Your task to perform on an android device: turn on bluetooth scan Image 0: 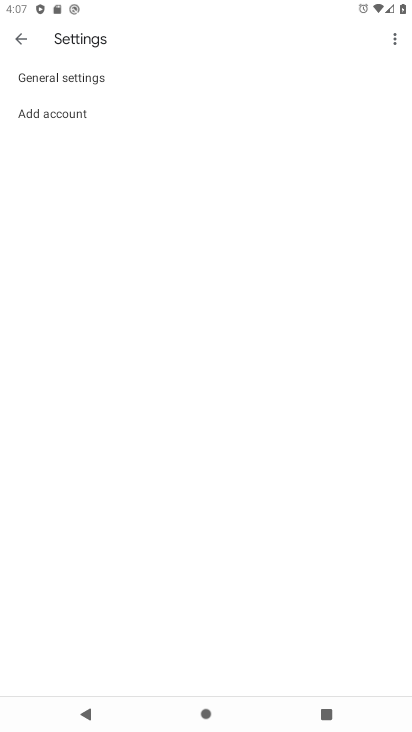
Step 0: press home button
Your task to perform on an android device: turn on bluetooth scan Image 1: 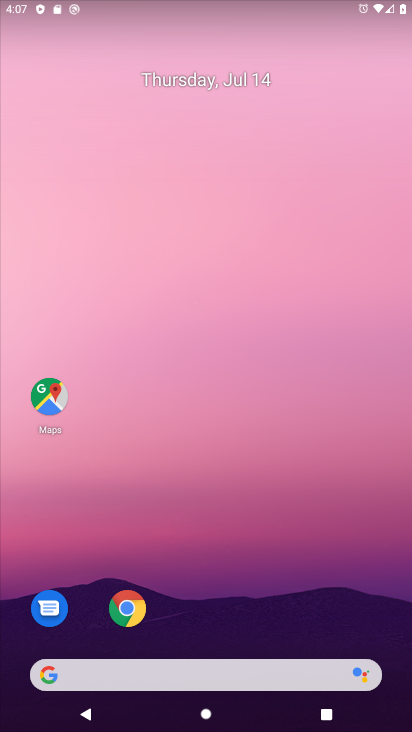
Step 1: drag from (262, 510) to (213, 1)
Your task to perform on an android device: turn on bluetooth scan Image 2: 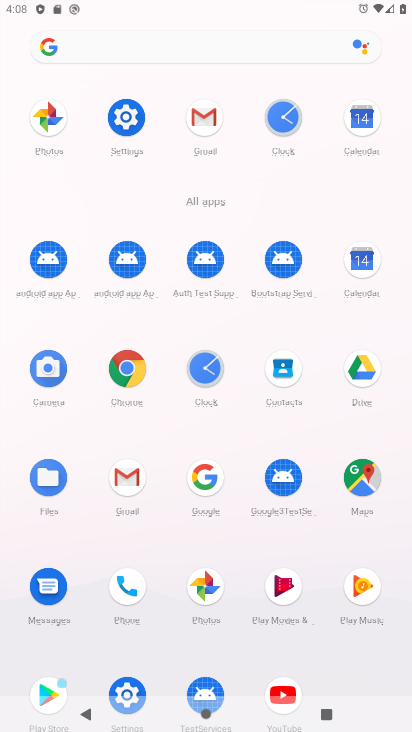
Step 2: click (133, 121)
Your task to perform on an android device: turn on bluetooth scan Image 3: 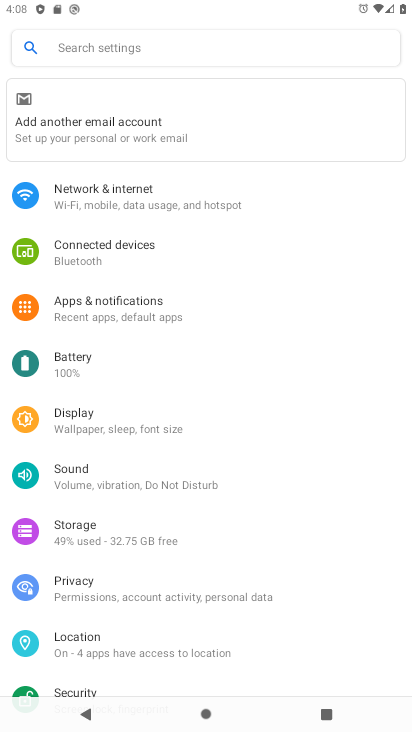
Step 3: click (76, 642)
Your task to perform on an android device: turn on bluetooth scan Image 4: 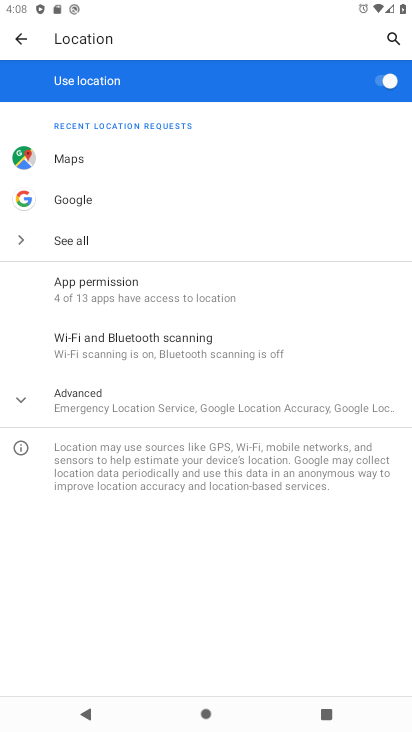
Step 4: click (107, 403)
Your task to perform on an android device: turn on bluetooth scan Image 5: 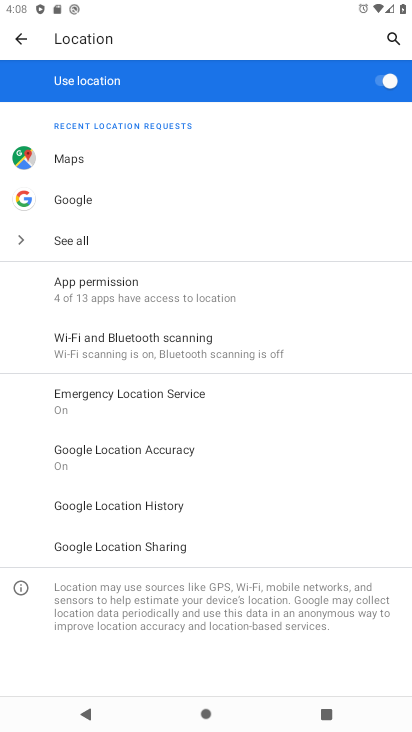
Step 5: click (131, 339)
Your task to perform on an android device: turn on bluetooth scan Image 6: 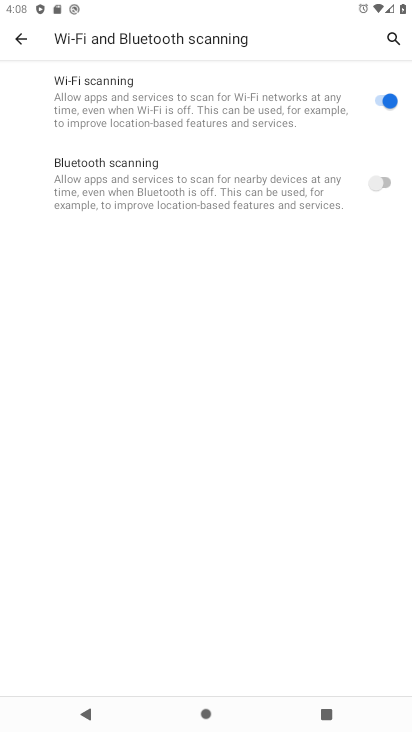
Step 6: click (375, 179)
Your task to perform on an android device: turn on bluetooth scan Image 7: 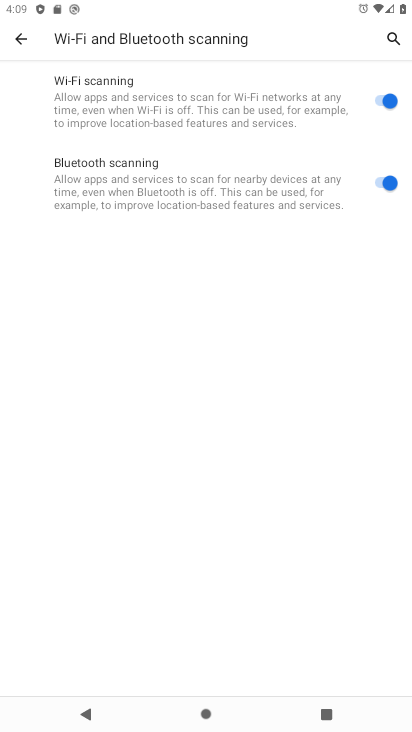
Step 7: task complete